Your task to perform on an android device: toggle location history Image 0: 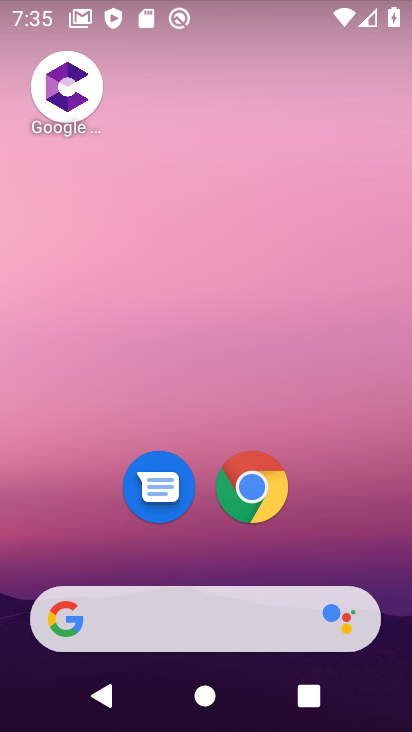
Step 0: drag from (332, 551) to (329, 207)
Your task to perform on an android device: toggle location history Image 1: 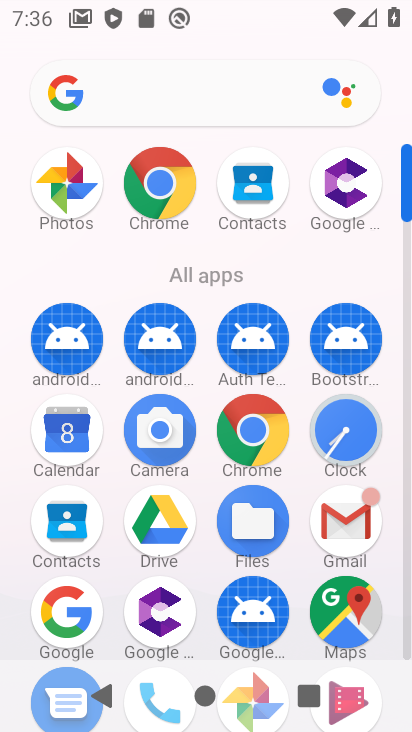
Step 1: click (407, 648)
Your task to perform on an android device: toggle location history Image 2: 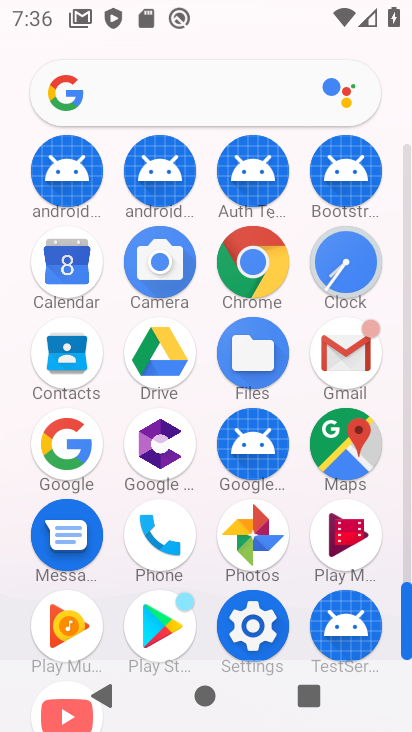
Step 2: click (263, 651)
Your task to perform on an android device: toggle location history Image 3: 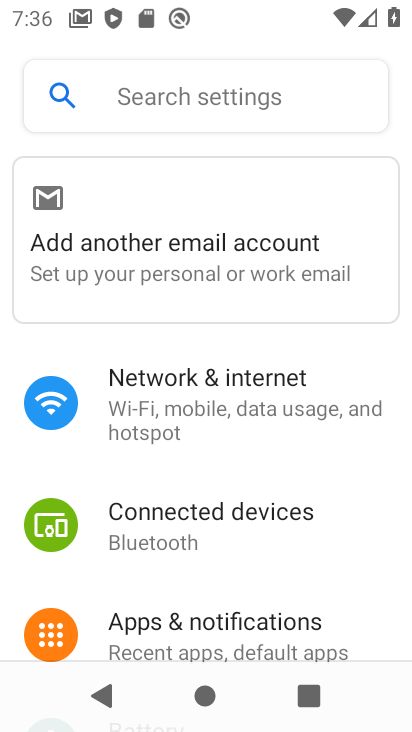
Step 3: drag from (263, 651) to (262, 490)
Your task to perform on an android device: toggle location history Image 4: 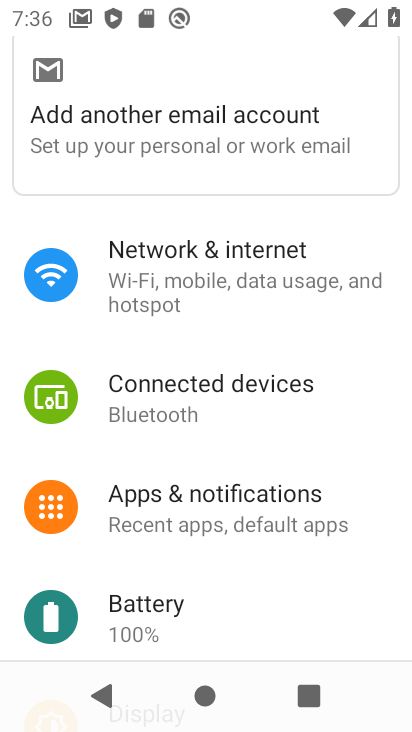
Step 4: drag from (262, 488) to (267, 262)
Your task to perform on an android device: toggle location history Image 5: 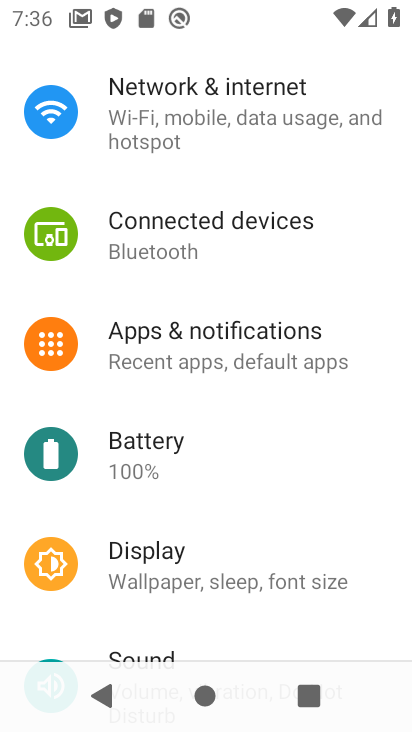
Step 5: drag from (221, 548) to (232, 374)
Your task to perform on an android device: toggle location history Image 6: 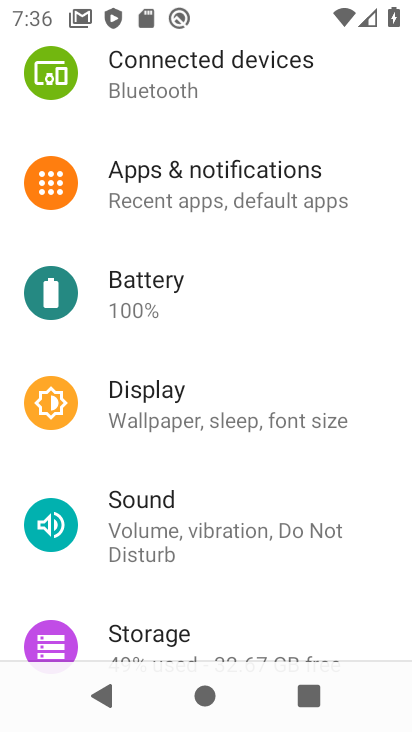
Step 6: drag from (232, 374) to (238, 231)
Your task to perform on an android device: toggle location history Image 7: 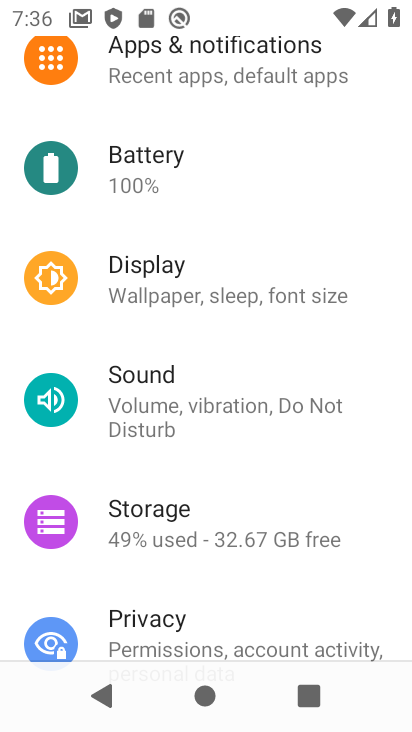
Step 7: drag from (221, 512) to (234, 239)
Your task to perform on an android device: toggle location history Image 8: 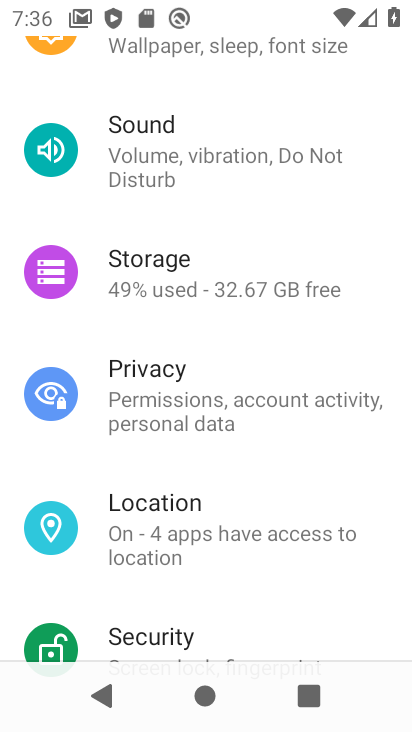
Step 8: click (216, 526)
Your task to perform on an android device: toggle location history Image 9: 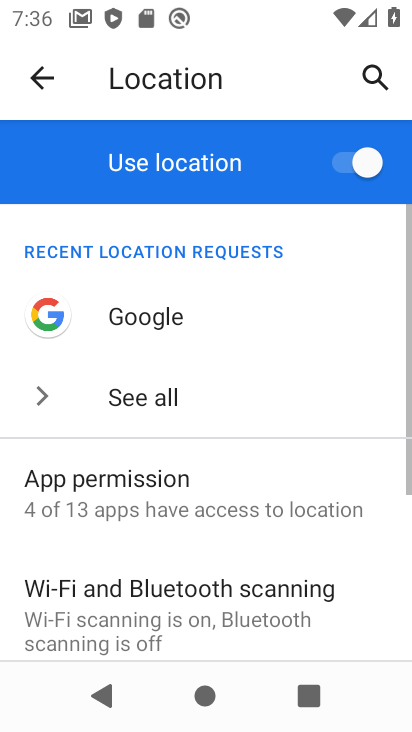
Step 9: drag from (194, 595) to (227, 323)
Your task to perform on an android device: toggle location history Image 10: 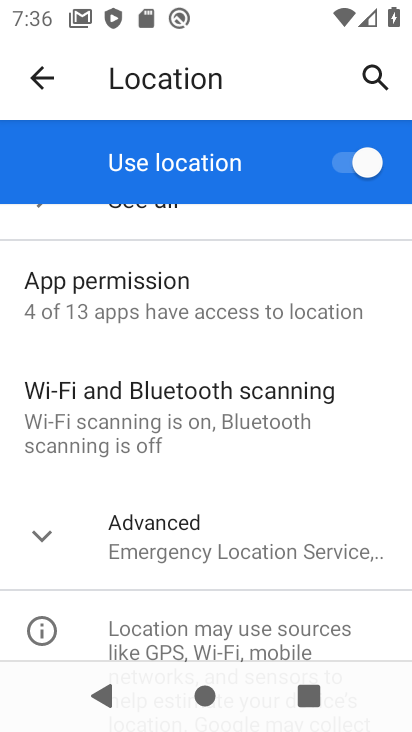
Step 10: drag from (206, 530) to (239, 361)
Your task to perform on an android device: toggle location history Image 11: 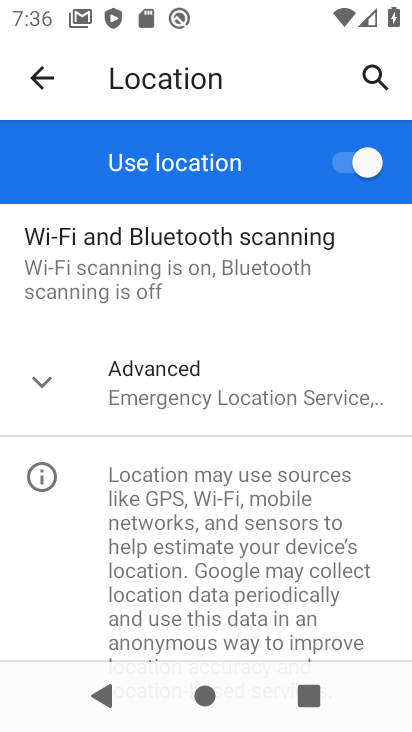
Step 11: click (186, 373)
Your task to perform on an android device: toggle location history Image 12: 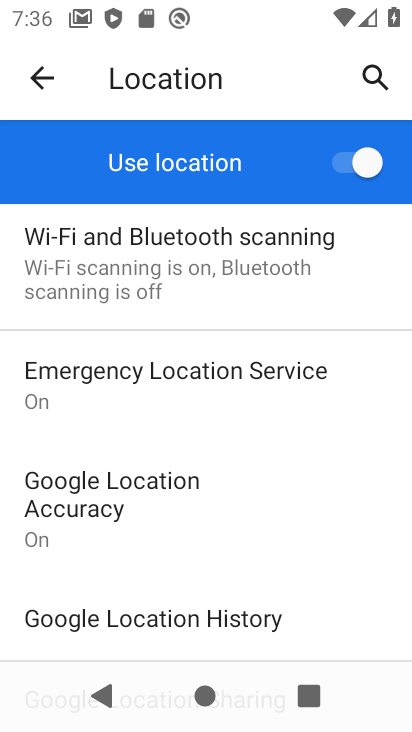
Step 12: drag from (174, 577) to (178, 416)
Your task to perform on an android device: toggle location history Image 13: 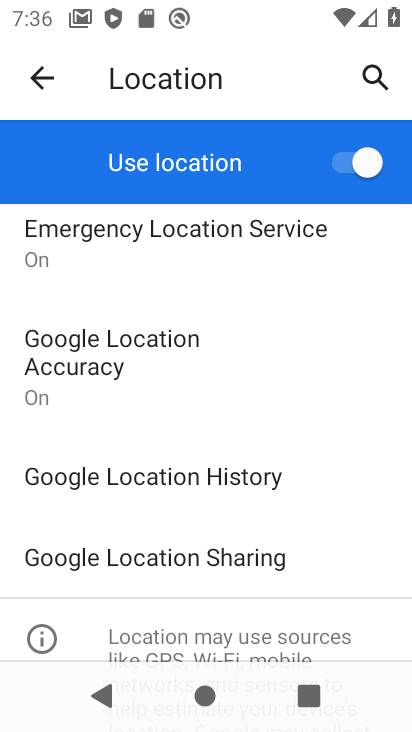
Step 13: click (175, 468)
Your task to perform on an android device: toggle location history Image 14: 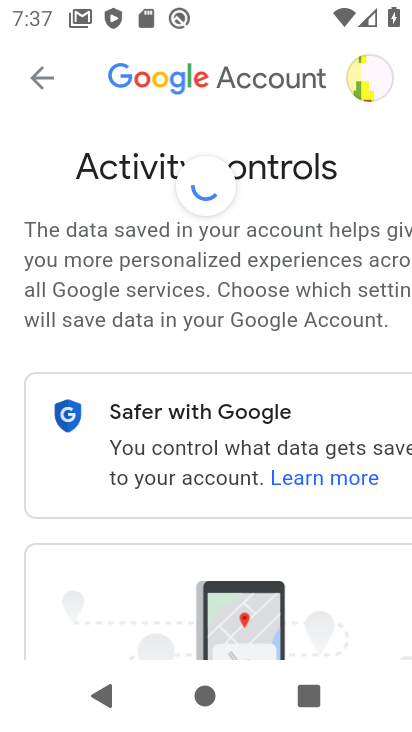
Step 14: task complete